Your task to perform on an android device: turn on location history Image 0: 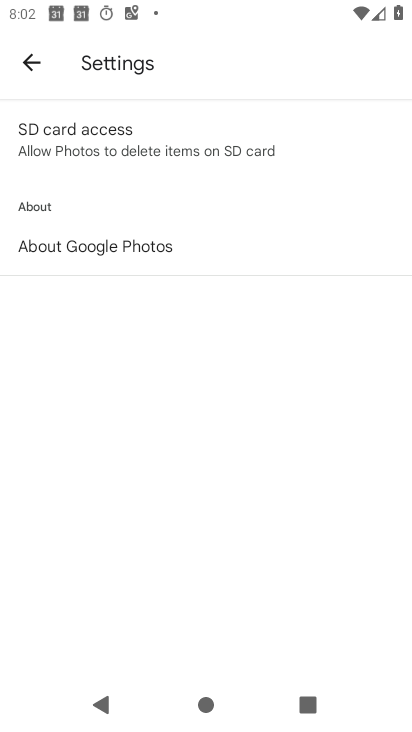
Step 0: press home button
Your task to perform on an android device: turn on location history Image 1: 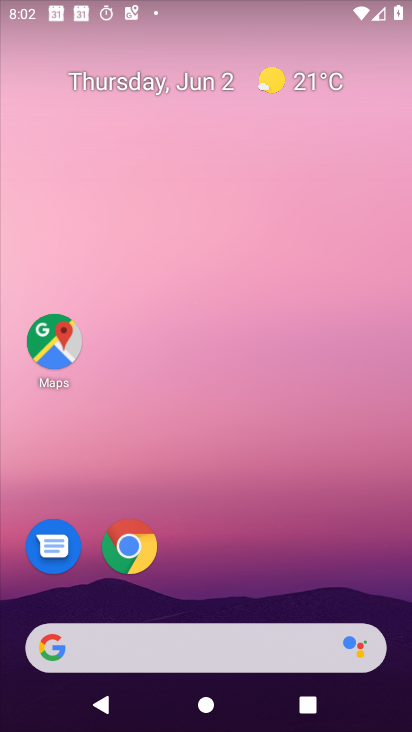
Step 1: drag from (310, 576) to (345, 171)
Your task to perform on an android device: turn on location history Image 2: 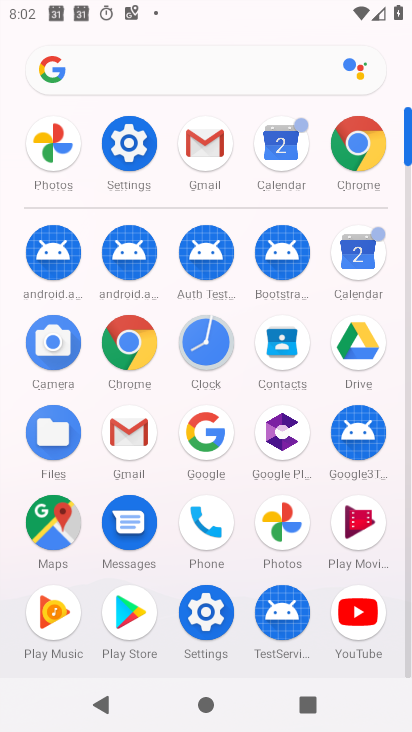
Step 2: click (202, 615)
Your task to perform on an android device: turn on location history Image 3: 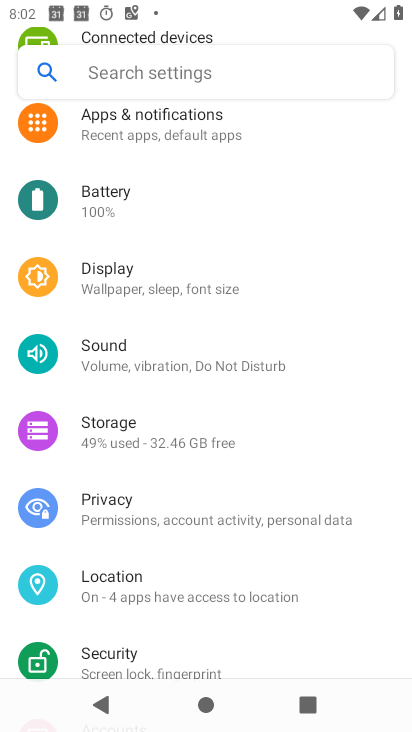
Step 3: click (210, 608)
Your task to perform on an android device: turn on location history Image 4: 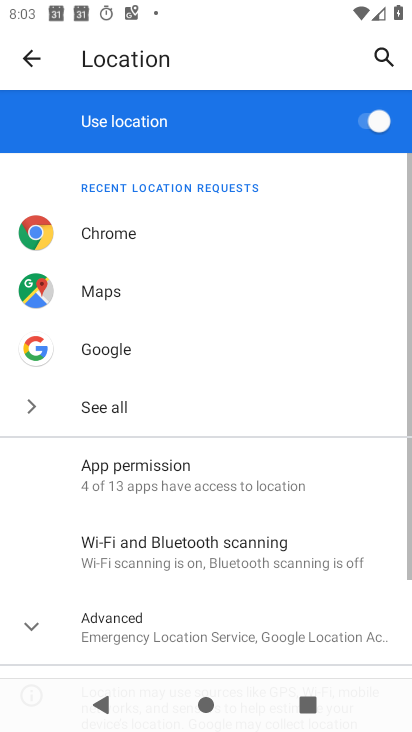
Step 4: drag from (220, 559) to (290, 306)
Your task to perform on an android device: turn on location history Image 5: 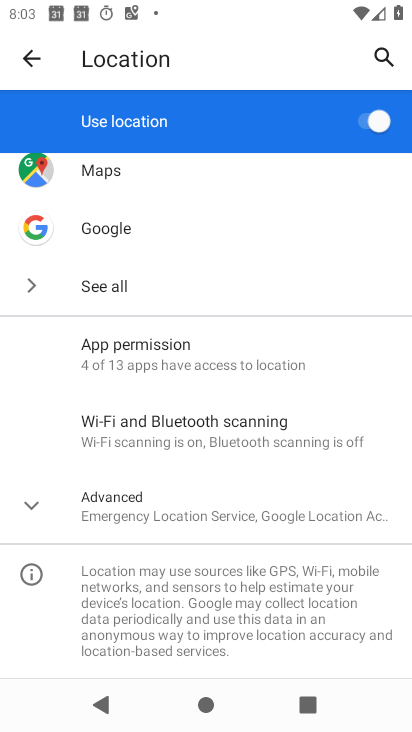
Step 5: click (222, 526)
Your task to perform on an android device: turn on location history Image 6: 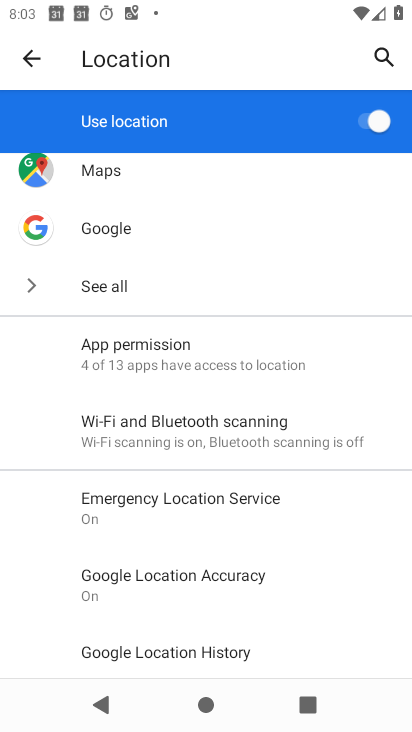
Step 6: click (260, 650)
Your task to perform on an android device: turn on location history Image 7: 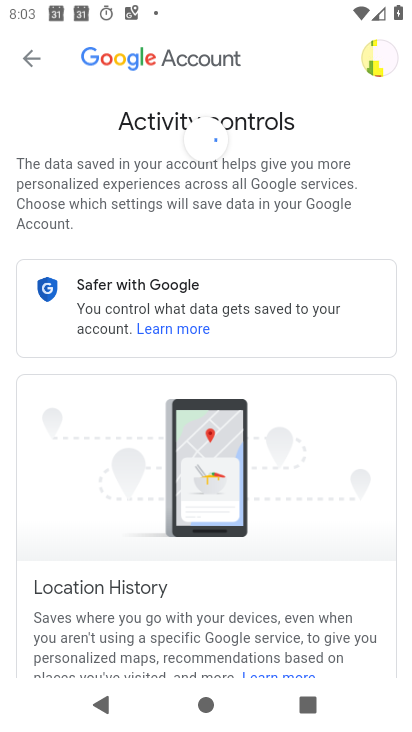
Step 7: task complete